Your task to perform on an android device: open app "VLC for Android" Image 0: 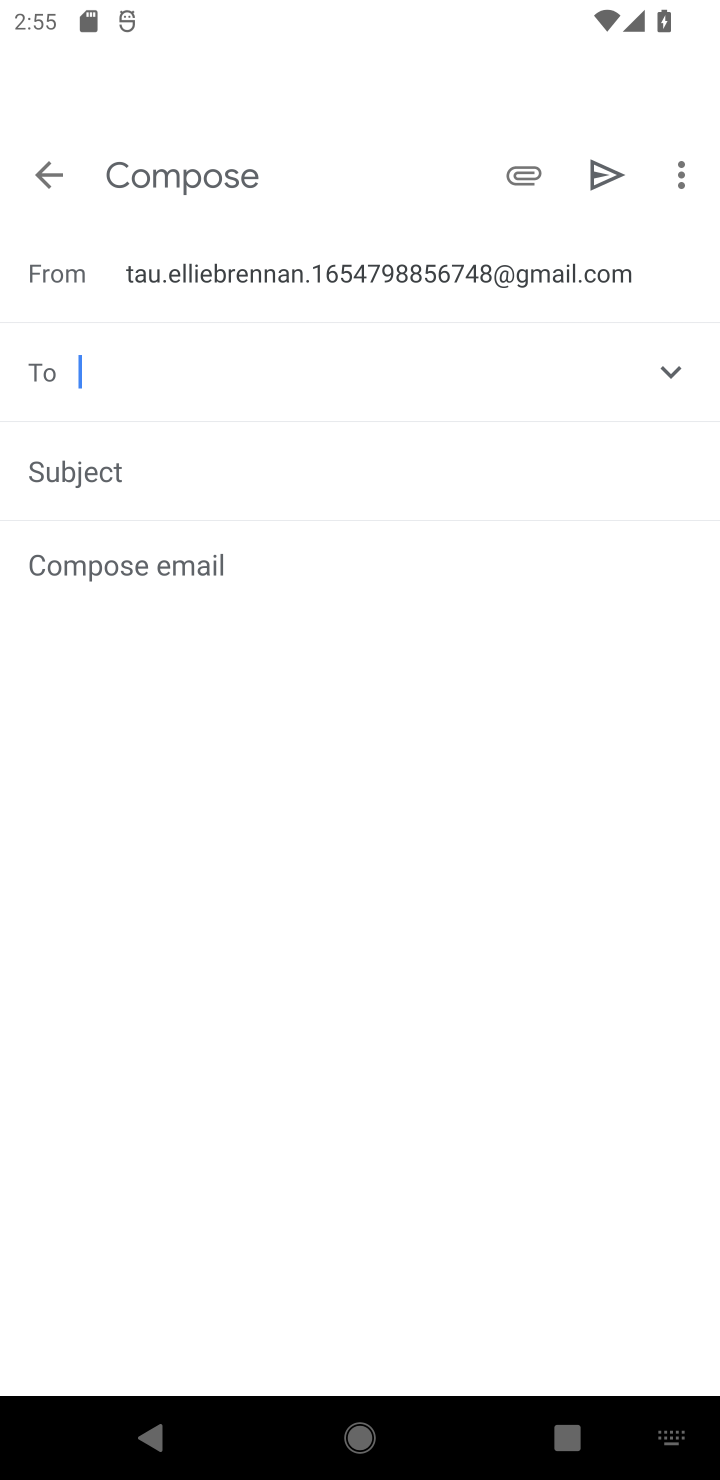
Step 0: press home button
Your task to perform on an android device: open app "VLC for Android" Image 1: 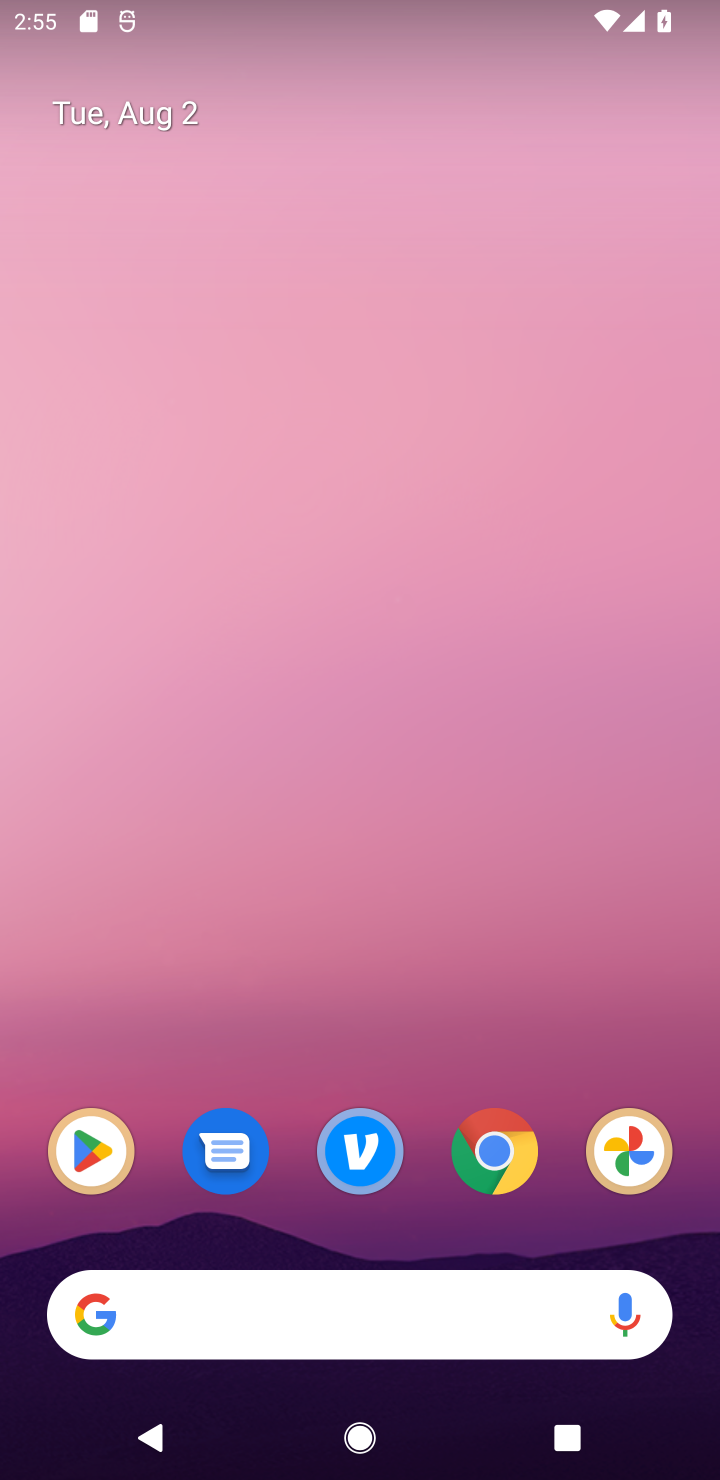
Step 1: task complete